Your task to perform on an android device: move a message to another label in the gmail app Image 0: 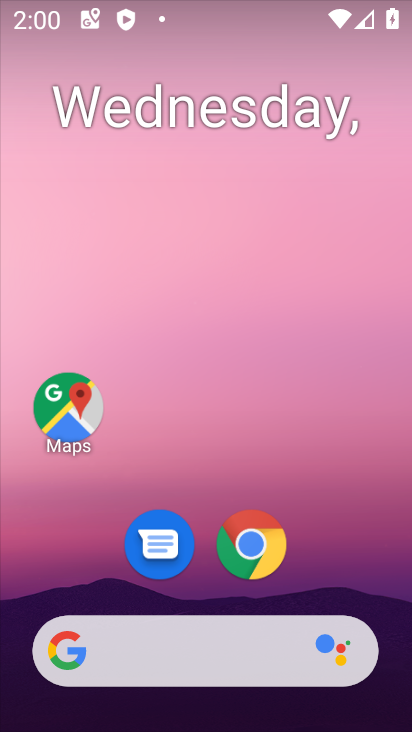
Step 0: click (411, 537)
Your task to perform on an android device: move a message to another label in the gmail app Image 1: 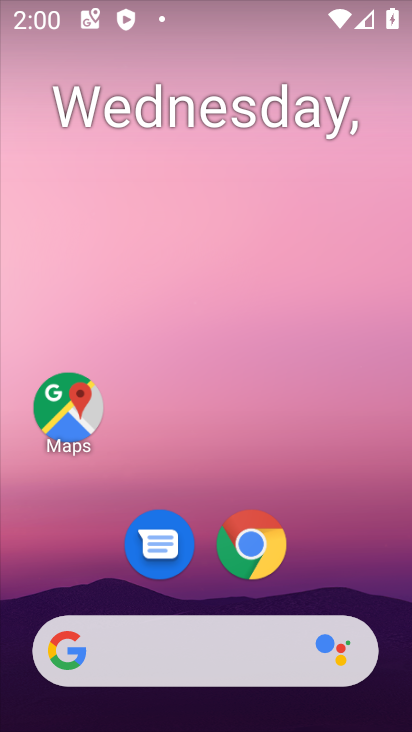
Step 1: drag from (356, 573) to (389, 268)
Your task to perform on an android device: move a message to another label in the gmail app Image 2: 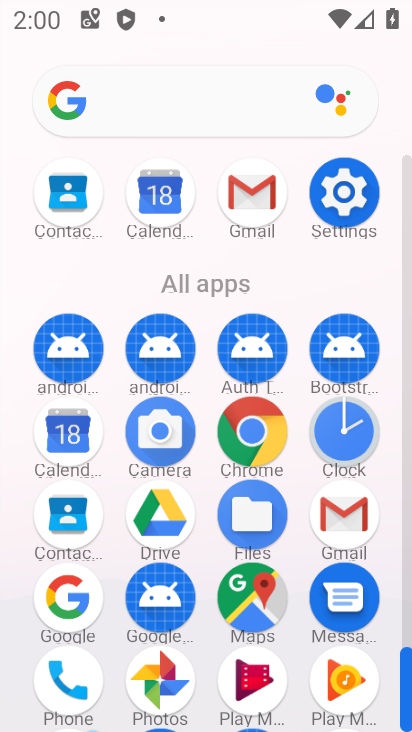
Step 2: click (332, 521)
Your task to perform on an android device: move a message to another label in the gmail app Image 3: 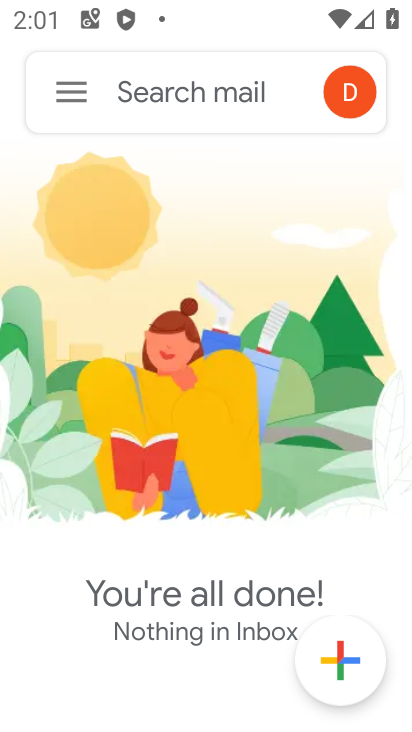
Step 3: task complete